Your task to perform on an android device: Open internet settings Image 0: 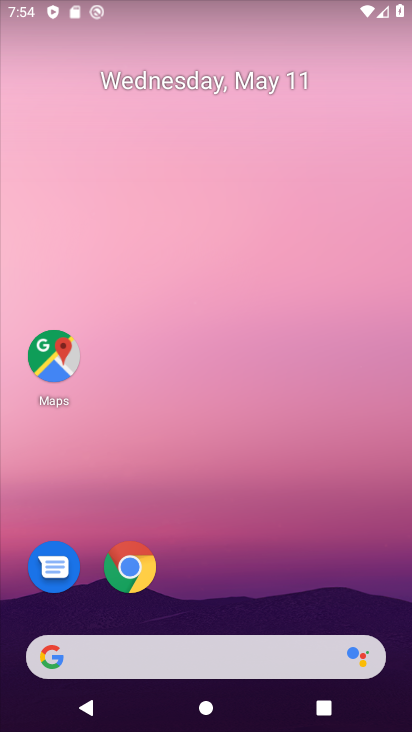
Step 0: drag from (203, 610) to (221, 81)
Your task to perform on an android device: Open internet settings Image 1: 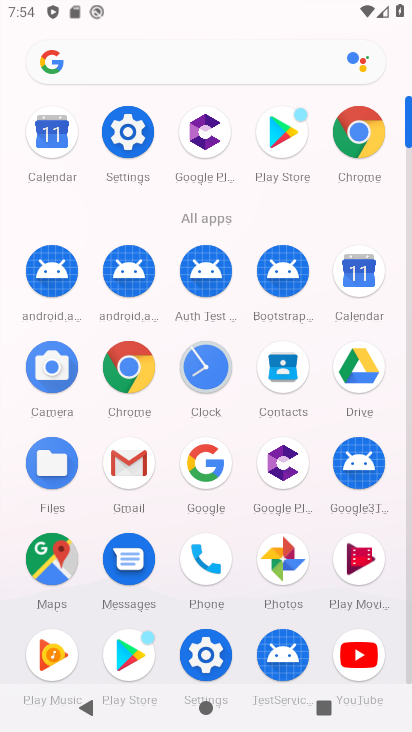
Step 1: click (203, 649)
Your task to perform on an android device: Open internet settings Image 2: 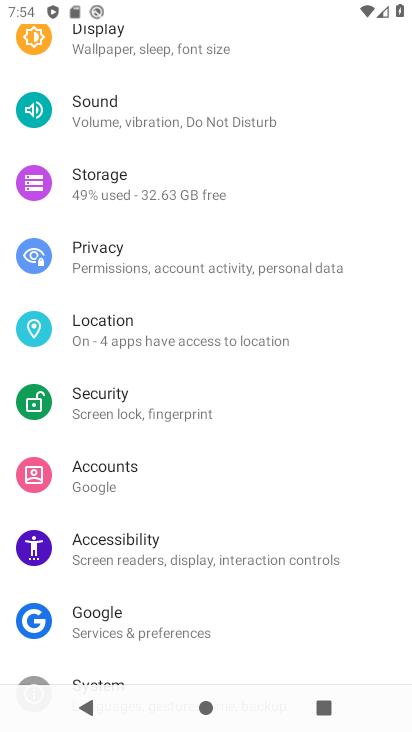
Step 2: drag from (154, 141) to (106, 624)
Your task to perform on an android device: Open internet settings Image 3: 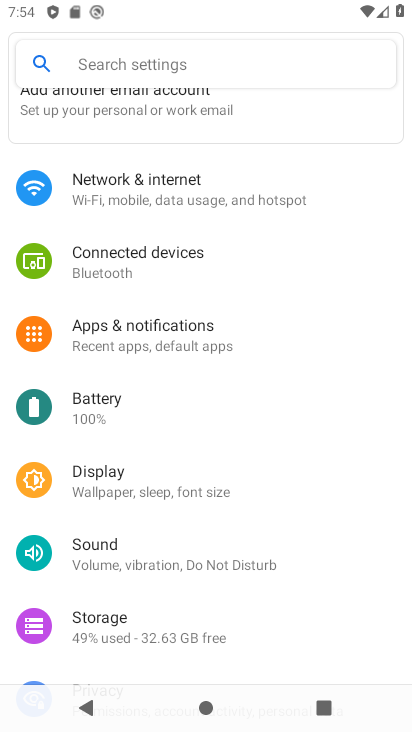
Step 3: click (145, 187)
Your task to perform on an android device: Open internet settings Image 4: 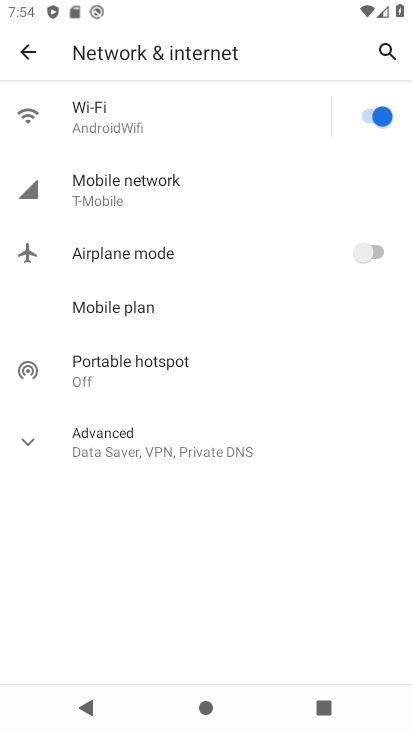
Step 4: task complete